Your task to perform on an android device: open device folders in google photos Image 0: 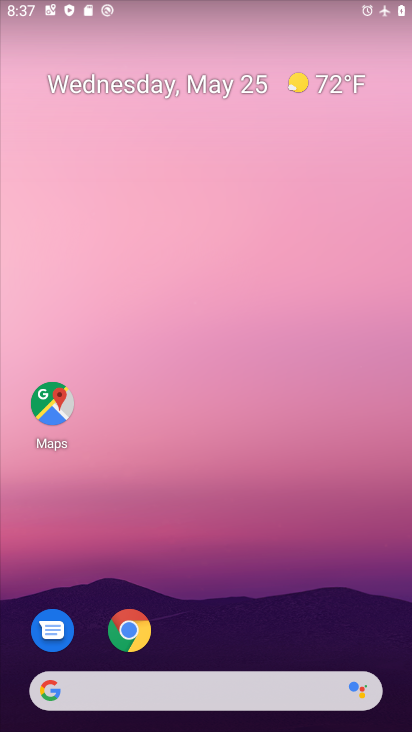
Step 0: drag from (194, 632) to (251, 230)
Your task to perform on an android device: open device folders in google photos Image 1: 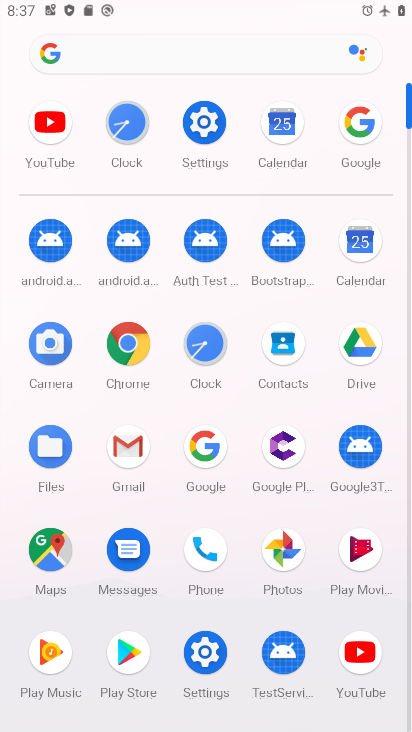
Step 1: click (278, 567)
Your task to perform on an android device: open device folders in google photos Image 2: 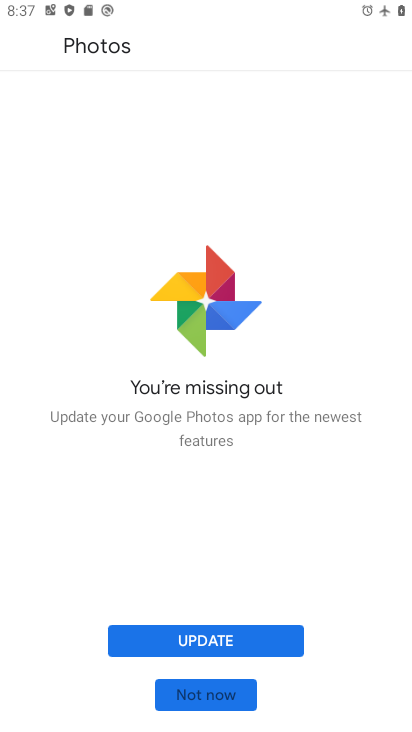
Step 2: click (206, 695)
Your task to perform on an android device: open device folders in google photos Image 3: 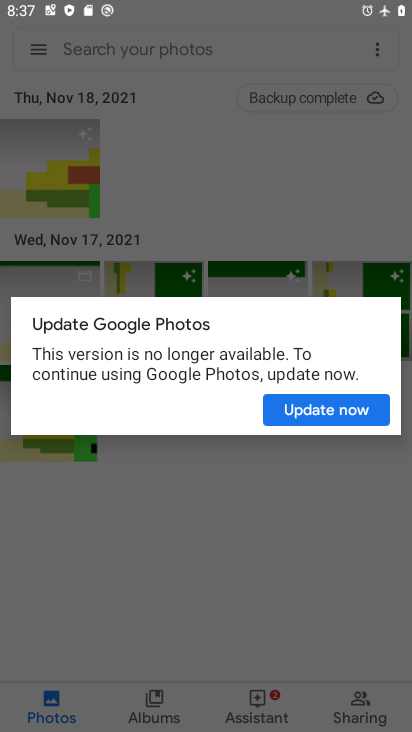
Step 3: click (301, 418)
Your task to perform on an android device: open device folders in google photos Image 4: 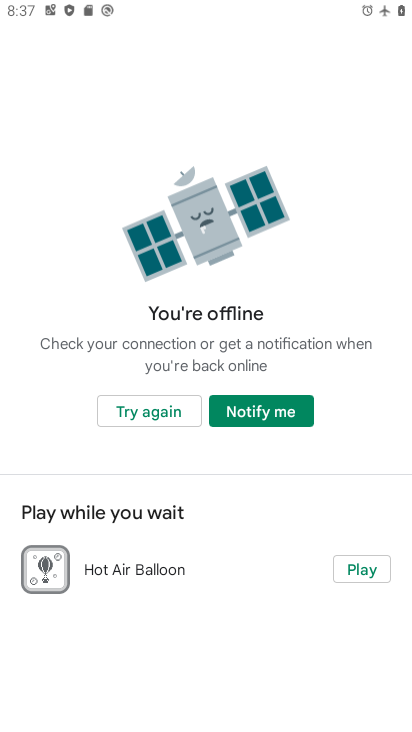
Step 4: press back button
Your task to perform on an android device: open device folders in google photos Image 5: 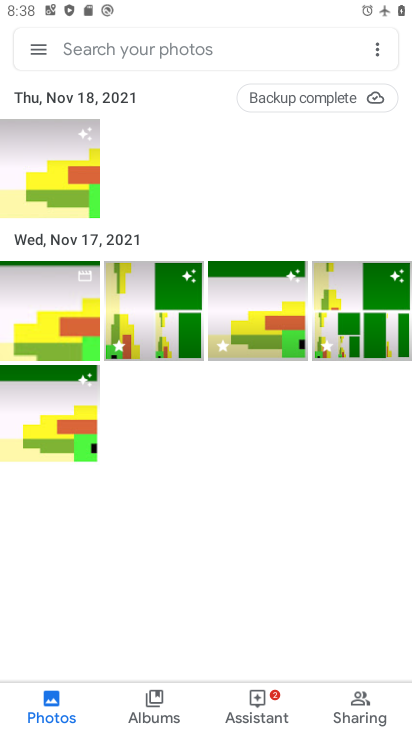
Step 5: click (35, 57)
Your task to perform on an android device: open device folders in google photos Image 6: 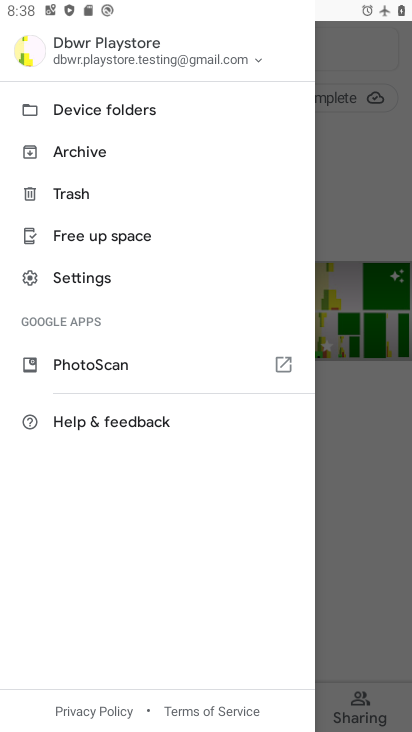
Step 6: click (55, 96)
Your task to perform on an android device: open device folders in google photos Image 7: 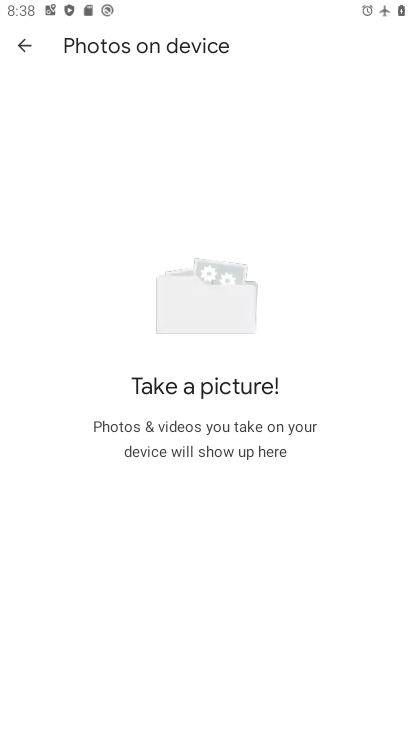
Step 7: task complete